Your task to perform on an android device: set an alarm Image 0: 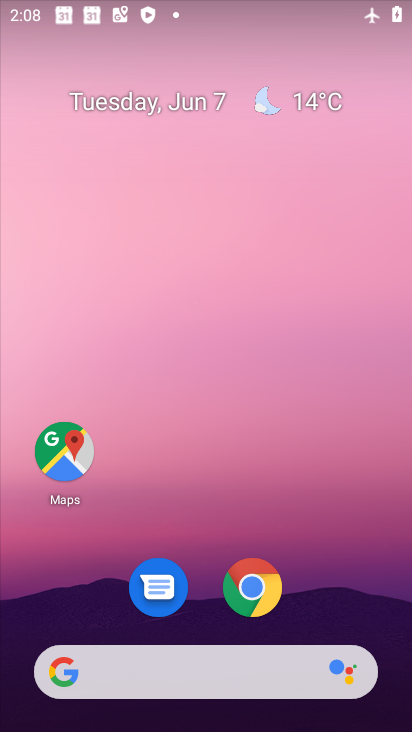
Step 0: drag from (346, 616) to (349, 483)
Your task to perform on an android device: set an alarm Image 1: 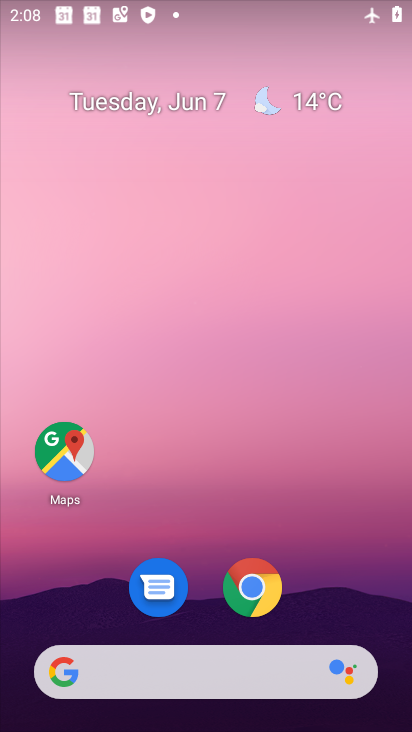
Step 1: drag from (309, 602) to (307, 37)
Your task to perform on an android device: set an alarm Image 2: 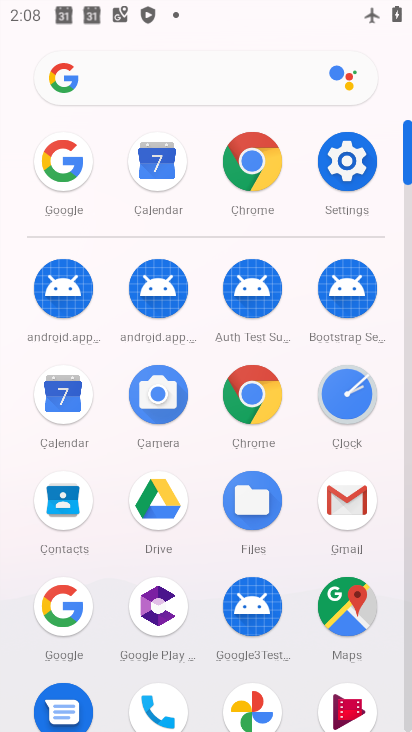
Step 2: click (360, 405)
Your task to perform on an android device: set an alarm Image 3: 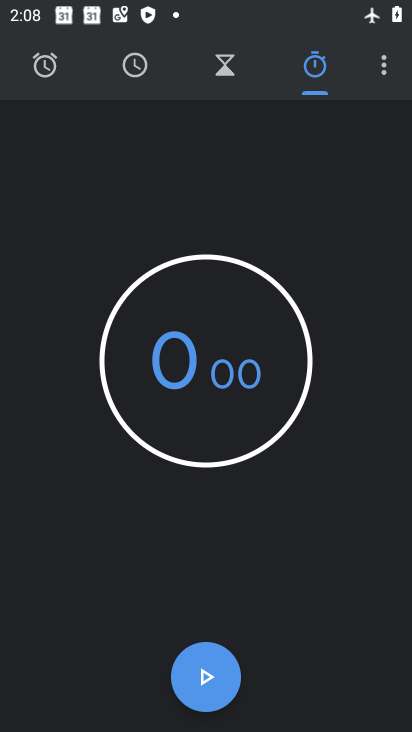
Step 3: click (50, 90)
Your task to perform on an android device: set an alarm Image 4: 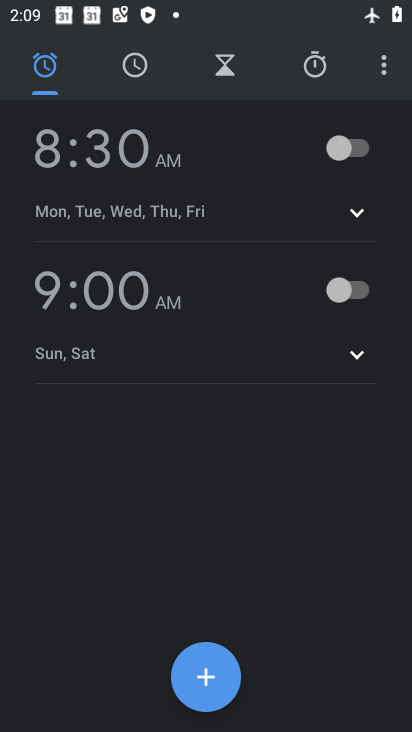
Step 4: click (202, 676)
Your task to perform on an android device: set an alarm Image 5: 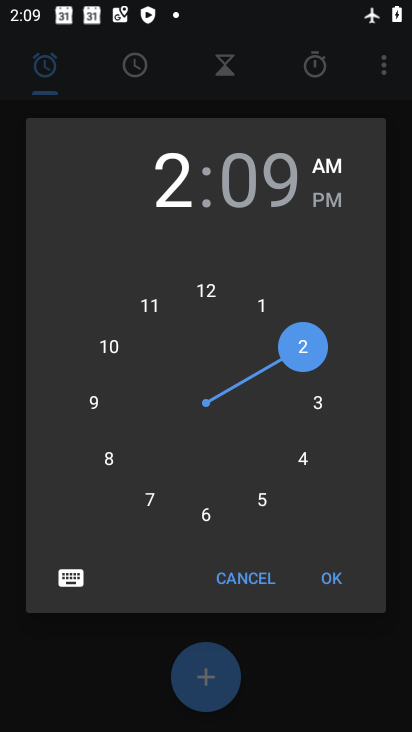
Step 5: click (329, 588)
Your task to perform on an android device: set an alarm Image 6: 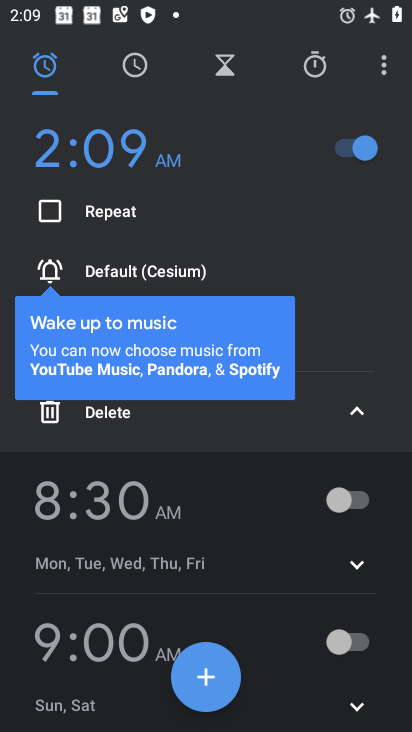
Step 6: task complete